Your task to perform on an android device: Open Maps and search for coffee Image 0: 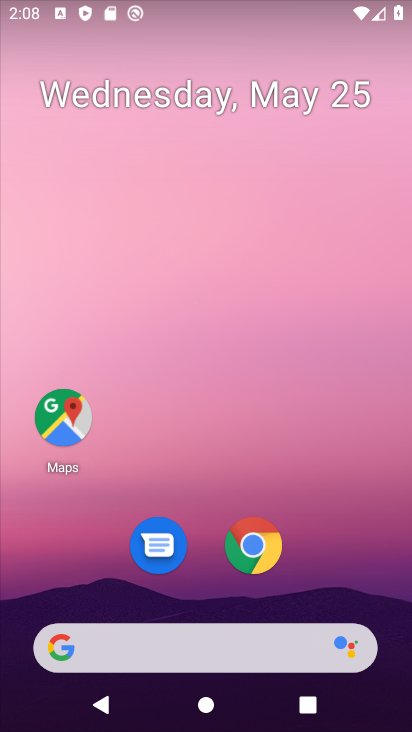
Step 0: drag from (361, 573) to (247, 185)
Your task to perform on an android device: Open Maps and search for coffee Image 1: 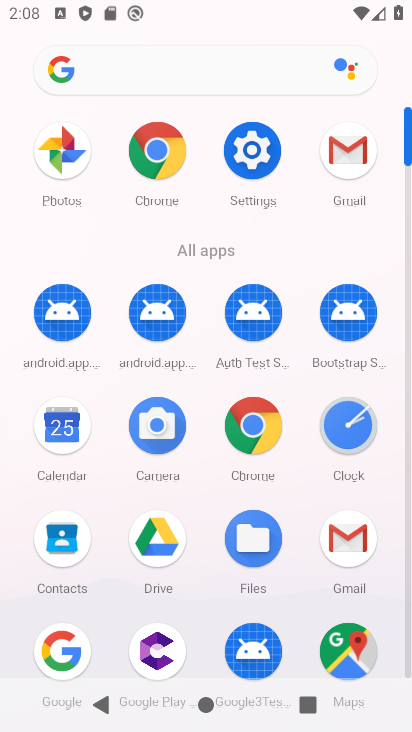
Step 1: click (362, 650)
Your task to perform on an android device: Open Maps and search for coffee Image 2: 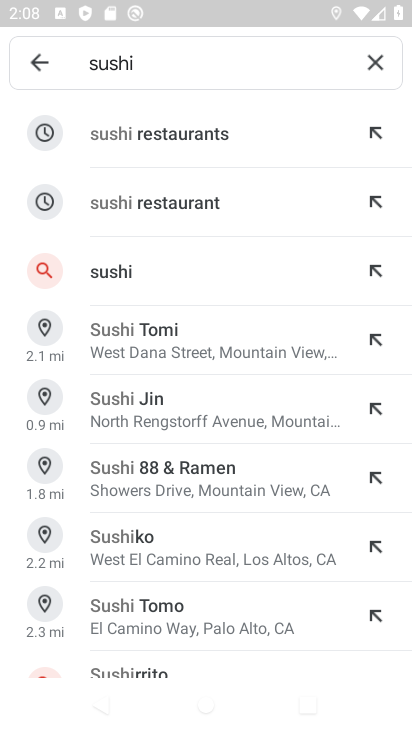
Step 2: click (386, 60)
Your task to perform on an android device: Open Maps and search for coffee Image 3: 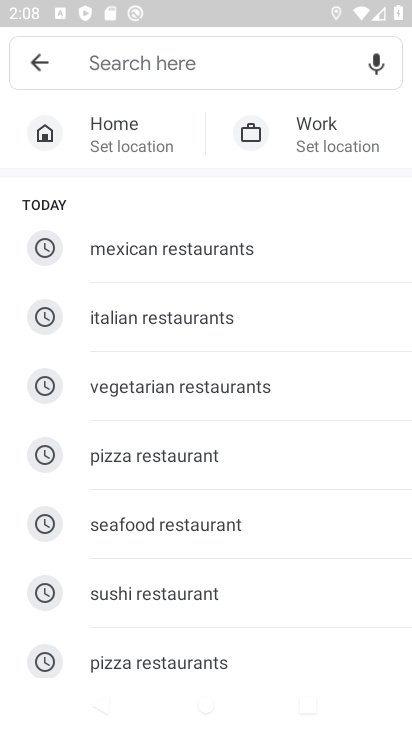
Step 3: drag from (192, 595) to (202, 286)
Your task to perform on an android device: Open Maps and search for coffee Image 4: 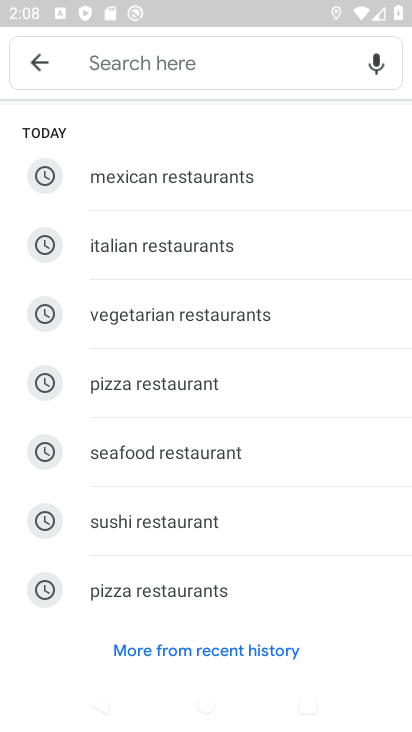
Step 4: click (135, 64)
Your task to perform on an android device: Open Maps and search for coffee Image 5: 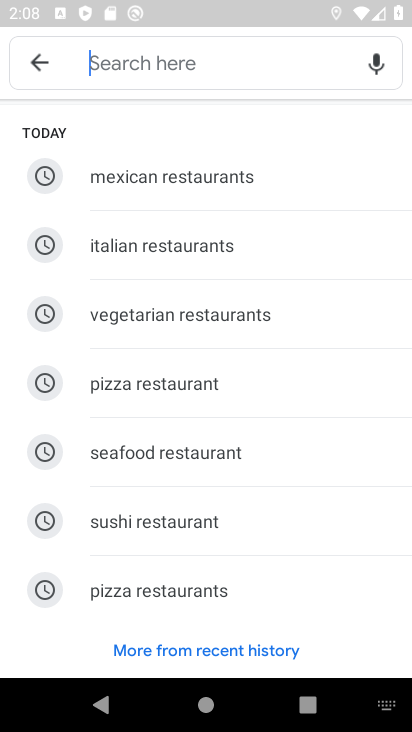
Step 5: type "coffee"
Your task to perform on an android device: Open Maps and search for coffee Image 6: 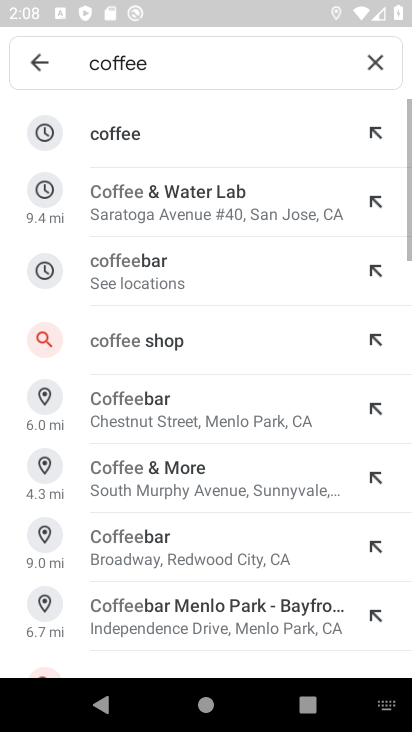
Step 6: click (178, 148)
Your task to perform on an android device: Open Maps and search for coffee Image 7: 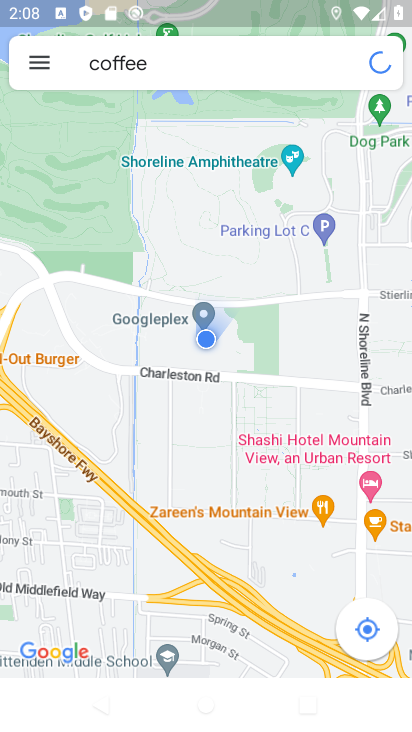
Step 7: task complete